Your task to perform on an android device: add a label to a message in the gmail app Image 0: 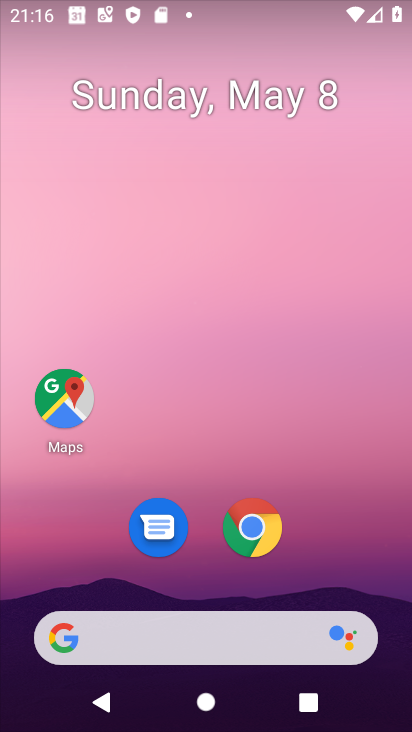
Step 0: drag from (205, 554) to (187, 30)
Your task to perform on an android device: add a label to a message in the gmail app Image 1: 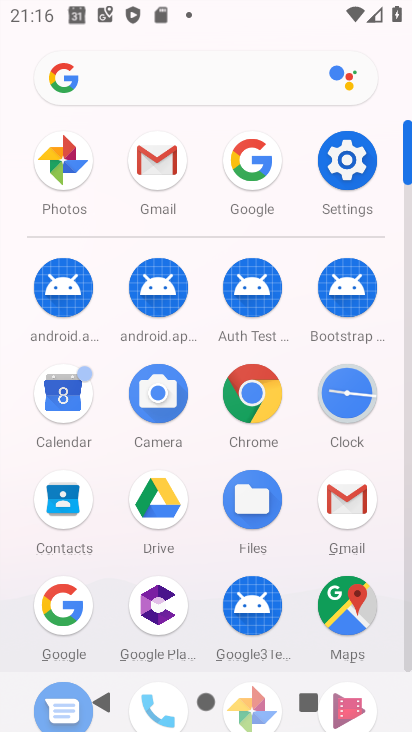
Step 1: click (156, 160)
Your task to perform on an android device: add a label to a message in the gmail app Image 2: 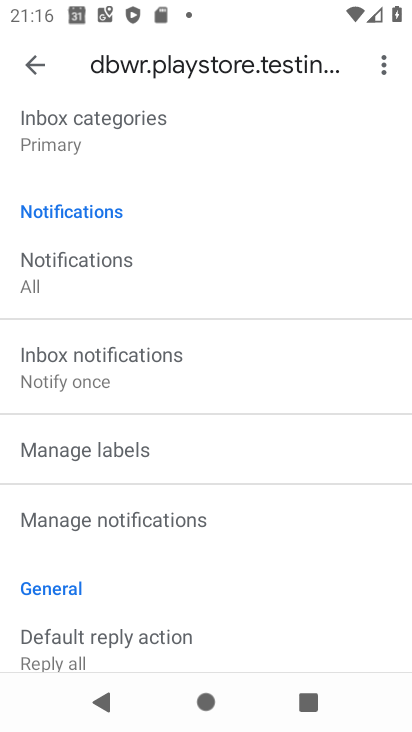
Step 2: press back button
Your task to perform on an android device: add a label to a message in the gmail app Image 3: 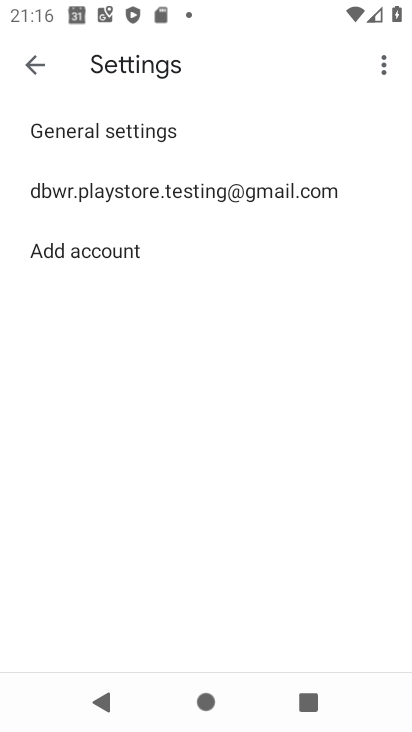
Step 3: press back button
Your task to perform on an android device: add a label to a message in the gmail app Image 4: 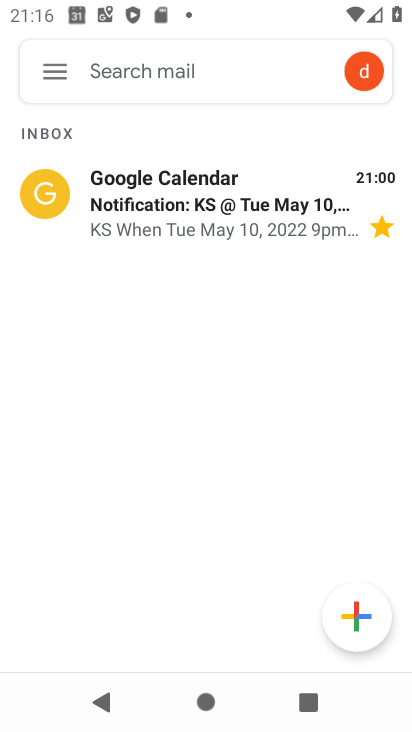
Step 4: click (190, 204)
Your task to perform on an android device: add a label to a message in the gmail app Image 5: 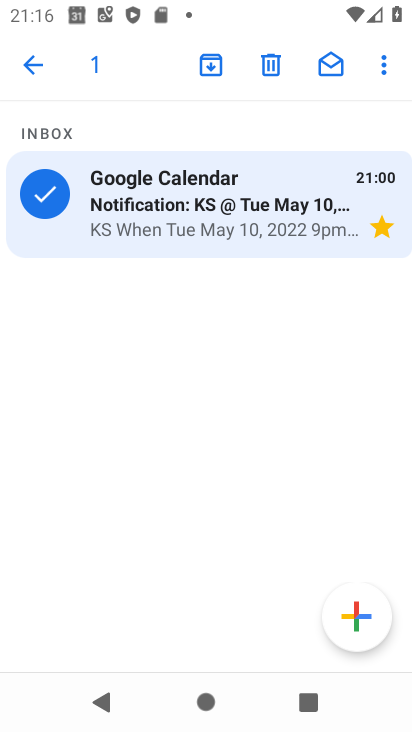
Step 5: click (383, 64)
Your task to perform on an android device: add a label to a message in the gmail app Image 6: 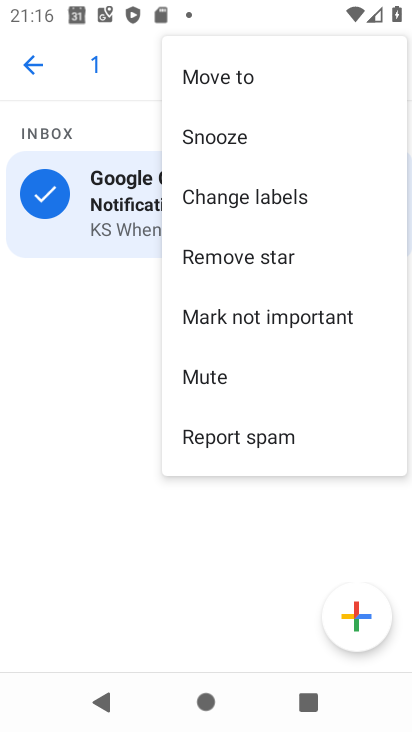
Step 6: click (248, 198)
Your task to perform on an android device: add a label to a message in the gmail app Image 7: 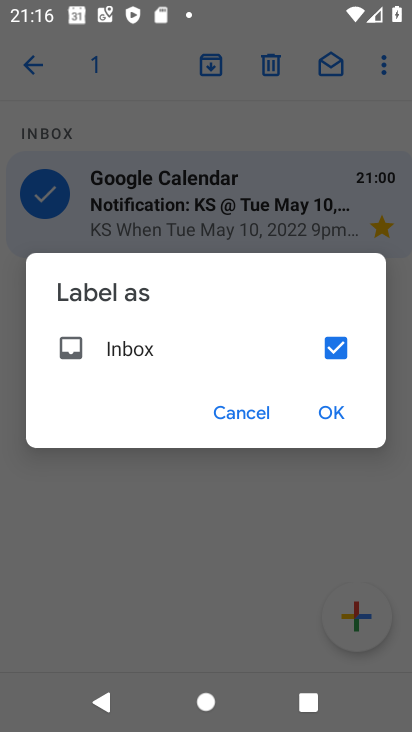
Step 7: click (328, 406)
Your task to perform on an android device: add a label to a message in the gmail app Image 8: 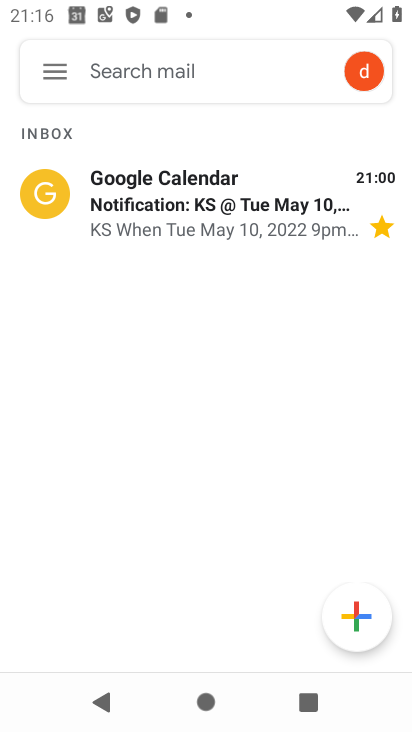
Step 8: task complete